Your task to perform on an android device: turn off javascript in the chrome app Image 0: 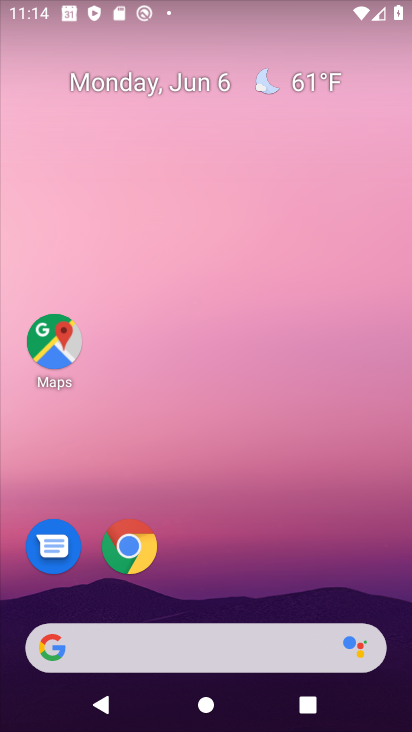
Step 0: click (136, 544)
Your task to perform on an android device: turn off javascript in the chrome app Image 1: 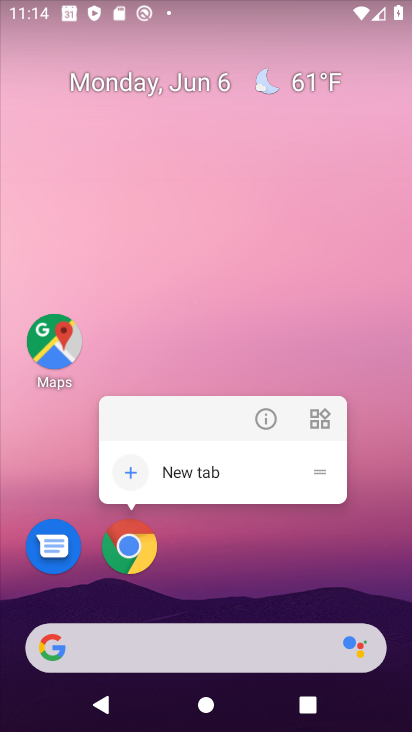
Step 1: click (118, 556)
Your task to perform on an android device: turn off javascript in the chrome app Image 2: 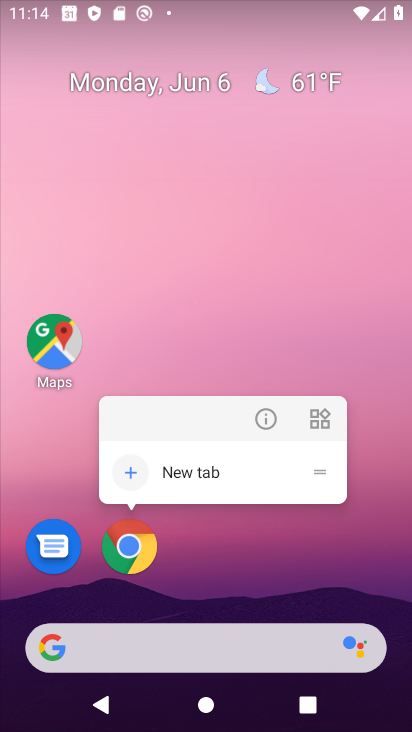
Step 2: click (122, 553)
Your task to perform on an android device: turn off javascript in the chrome app Image 3: 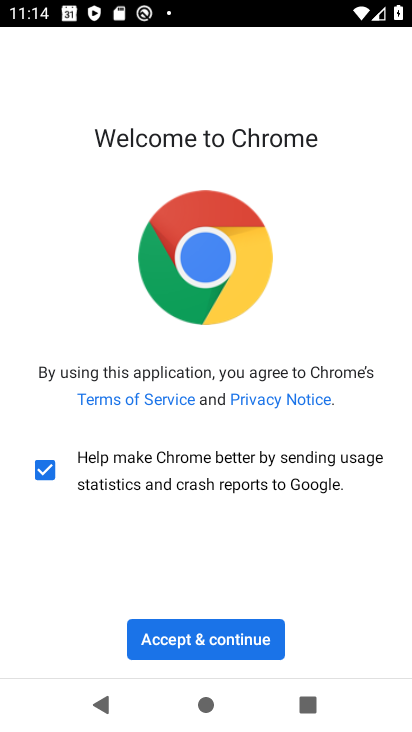
Step 3: click (240, 632)
Your task to perform on an android device: turn off javascript in the chrome app Image 4: 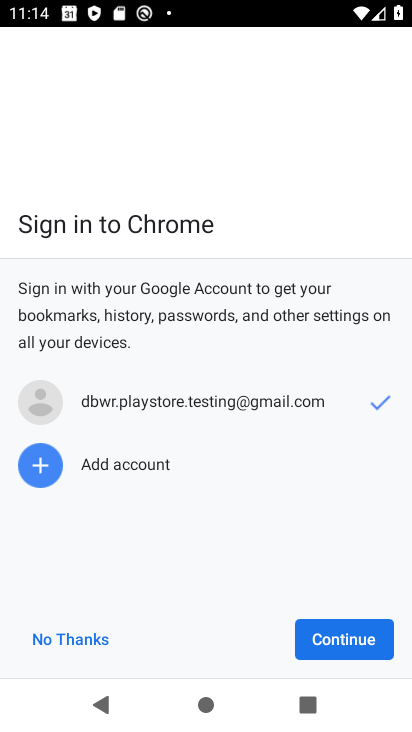
Step 4: click (331, 650)
Your task to perform on an android device: turn off javascript in the chrome app Image 5: 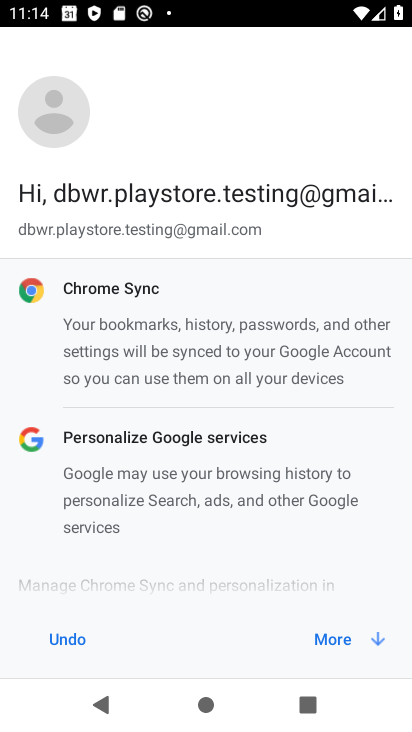
Step 5: click (328, 644)
Your task to perform on an android device: turn off javascript in the chrome app Image 6: 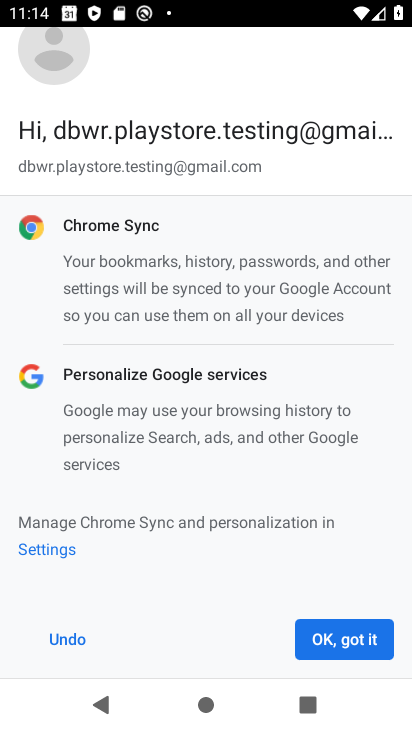
Step 6: click (331, 641)
Your task to perform on an android device: turn off javascript in the chrome app Image 7: 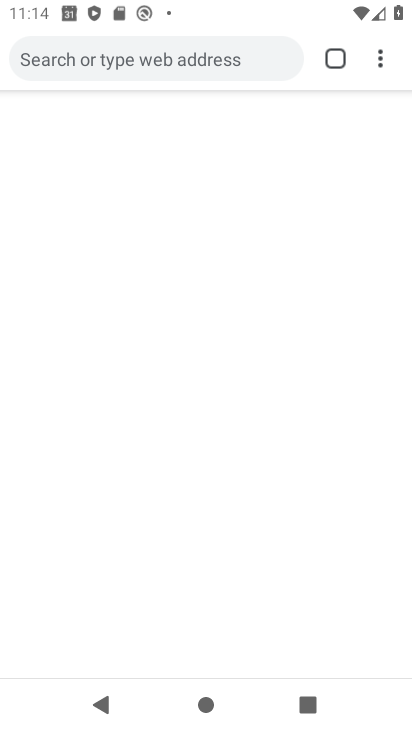
Step 7: drag from (383, 59) to (188, 501)
Your task to perform on an android device: turn off javascript in the chrome app Image 8: 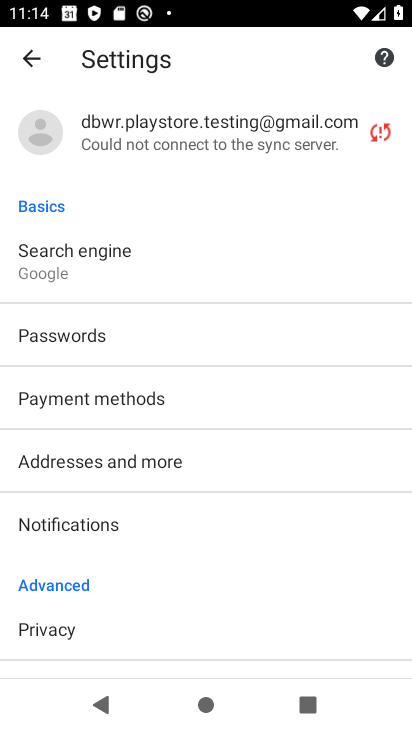
Step 8: drag from (136, 589) to (243, 120)
Your task to perform on an android device: turn off javascript in the chrome app Image 9: 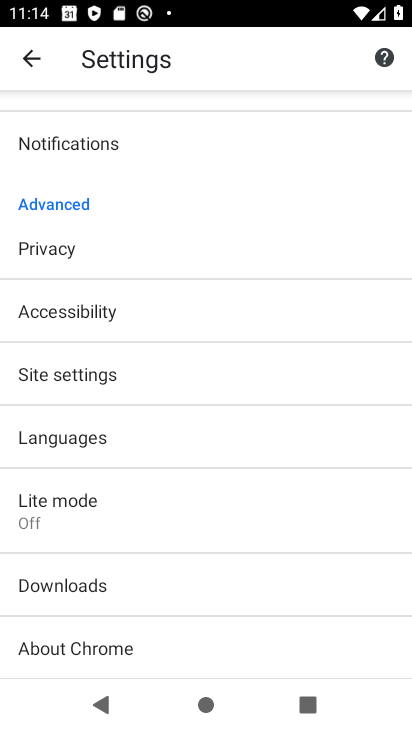
Step 9: click (99, 379)
Your task to perform on an android device: turn off javascript in the chrome app Image 10: 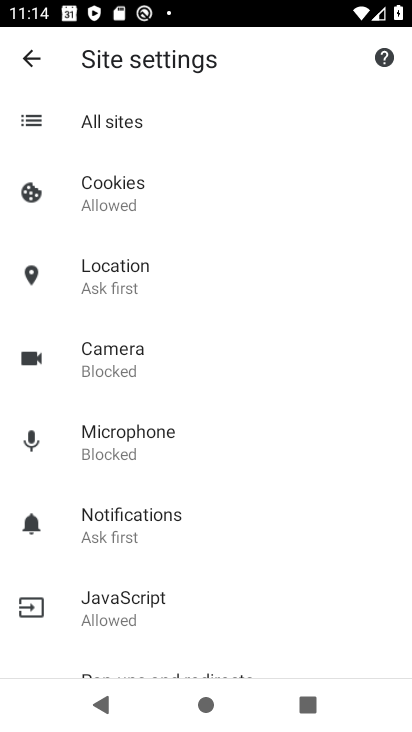
Step 10: click (117, 608)
Your task to perform on an android device: turn off javascript in the chrome app Image 11: 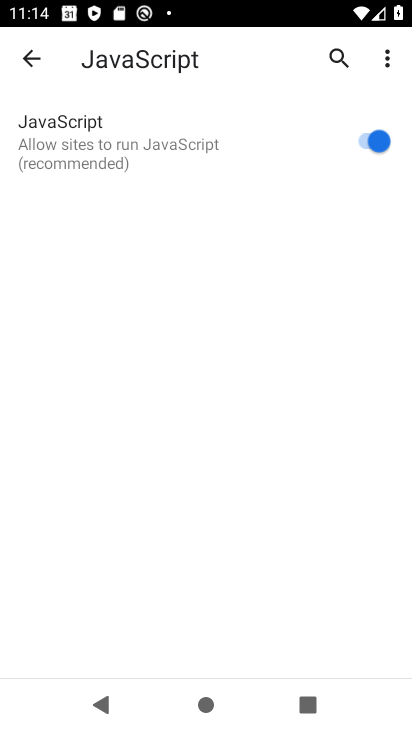
Step 11: click (368, 138)
Your task to perform on an android device: turn off javascript in the chrome app Image 12: 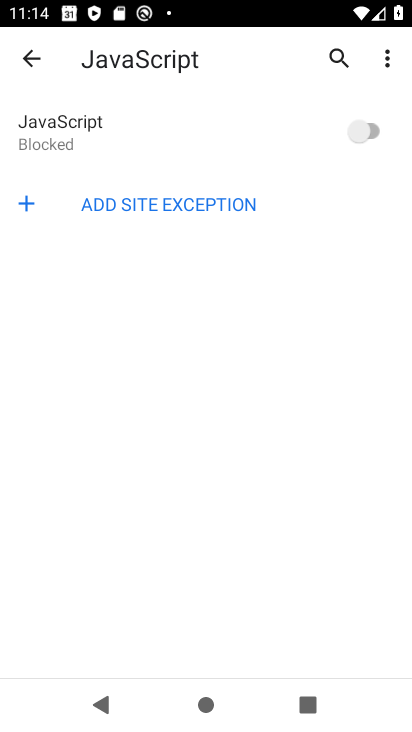
Step 12: task complete